Your task to perform on an android device: turn off javascript in the chrome app Image 0: 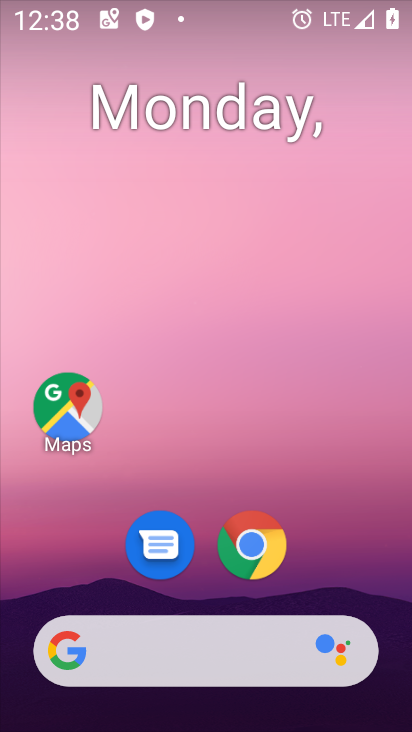
Step 0: drag from (386, 605) to (393, 310)
Your task to perform on an android device: turn off javascript in the chrome app Image 1: 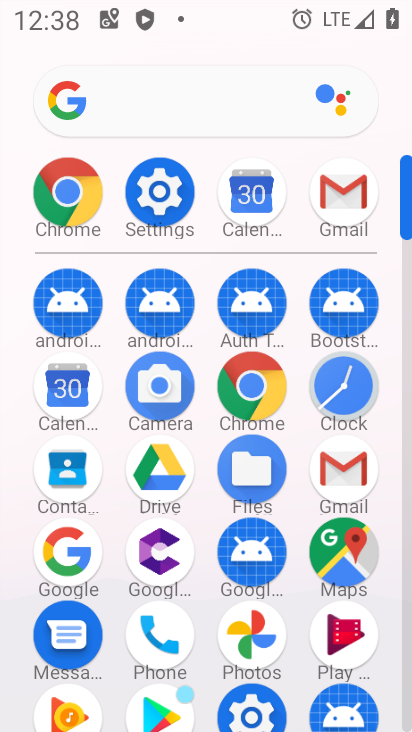
Step 1: click (277, 404)
Your task to perform on an android device: turn off javascript in the chrome app Image 2: 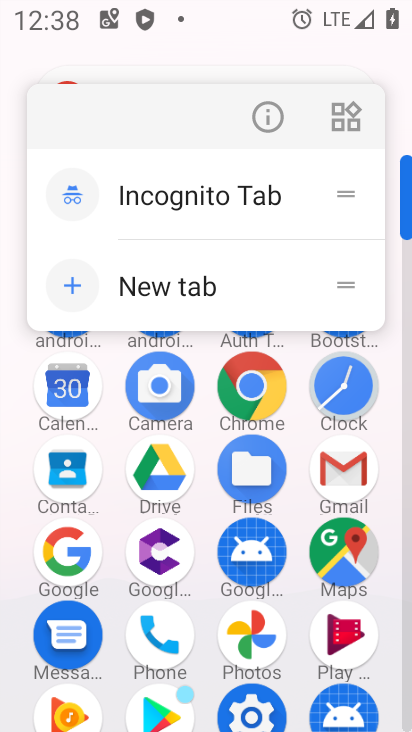
Step 2: click (277, 404)
Your task to perform on an android device: turn off javascript in the chrome app Image 3: 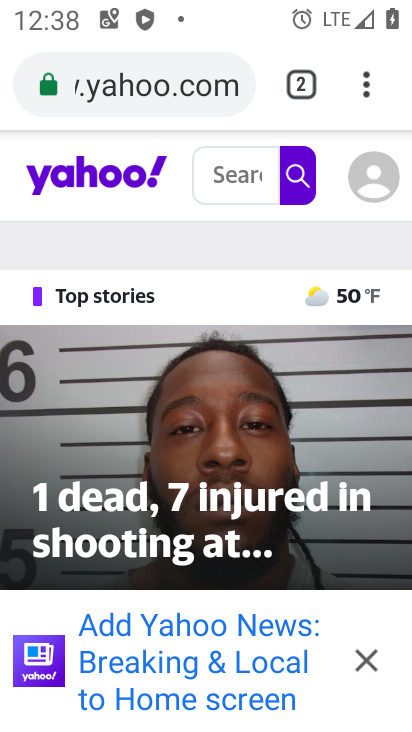
Step 3: click (362, 96)
Your task to perform on an android device: turn off javascript in the chrome app Image 4: 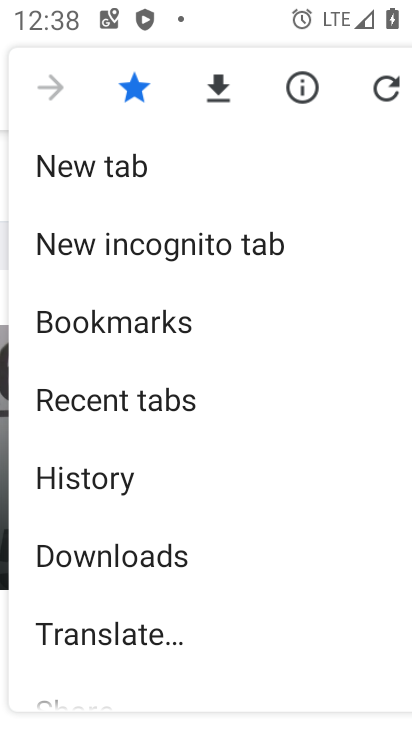
Step 4: drag from (324, 471) to (319, 315)
Your task to perform on an android device: turn off javascript in the chrome app Image 5: 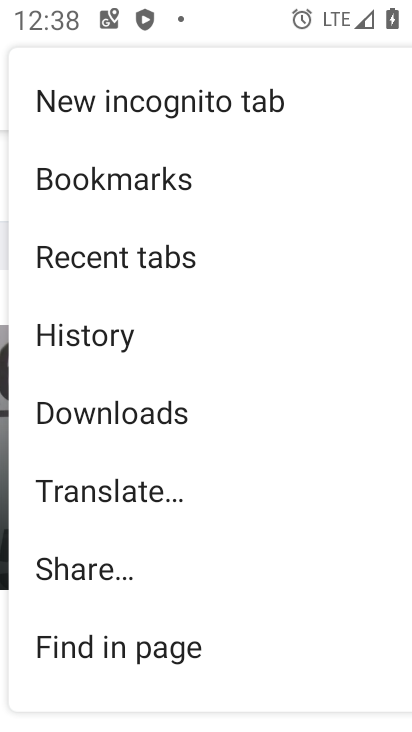
Step 5: drag from (319, 518) to (324, 337)
Your task to perform on an android device: turn off javascript in the chrome app Image 6: 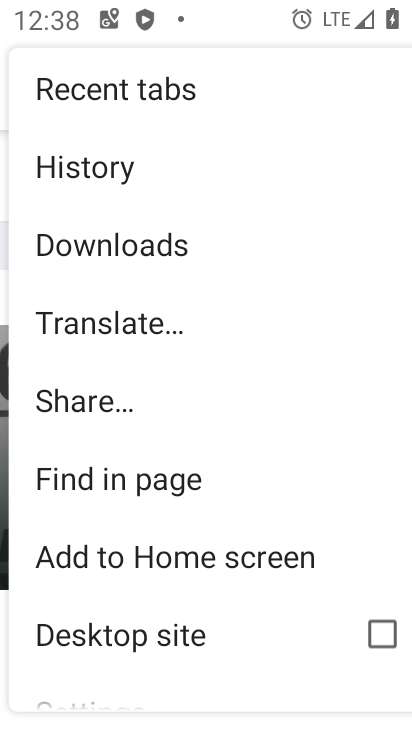
Step 6: drag from (322, 524) to (333, 358)
Your task to perform on an android device: turn off javascript in the chrome app Image 7: 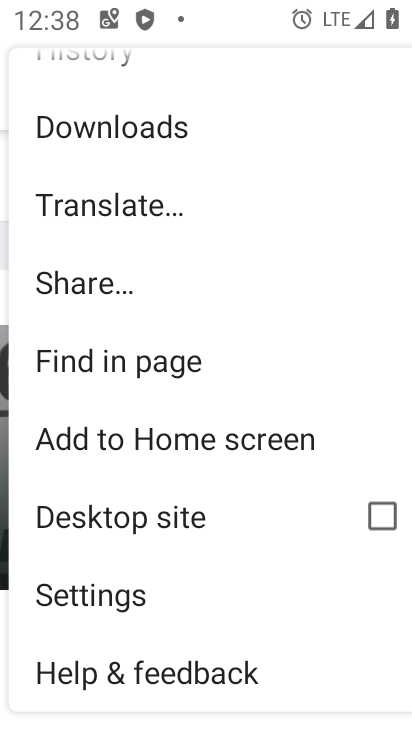
Step 7: click (107, 627)
Your task to perform on an android device: turn off javascript in the chrome app Image 8: 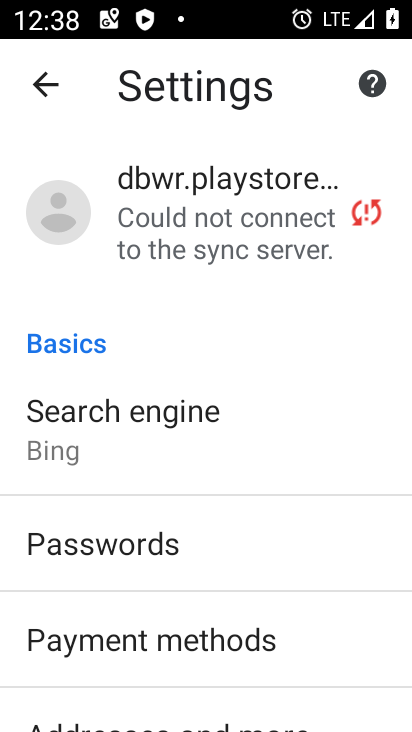
Step 8: drag from (260, 530) to (278, 418)
Your task to perform on an android device: turn off javascript in the chrome app Image 9: 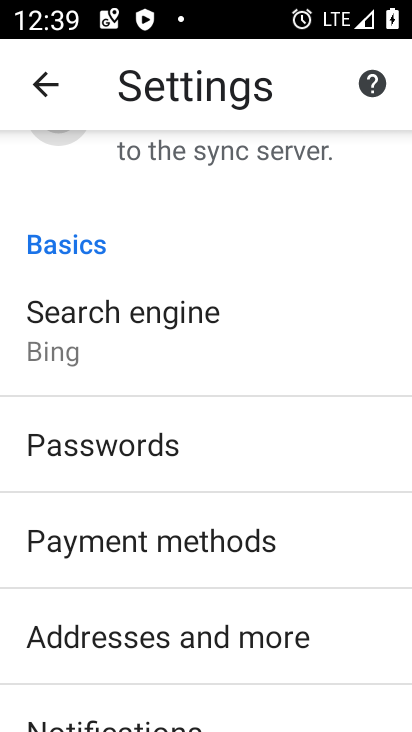
Step 9: drag from (294, 559) to (319, 454)
Your task to perform on an android device: turn off javascript in the chrome app Image 10: 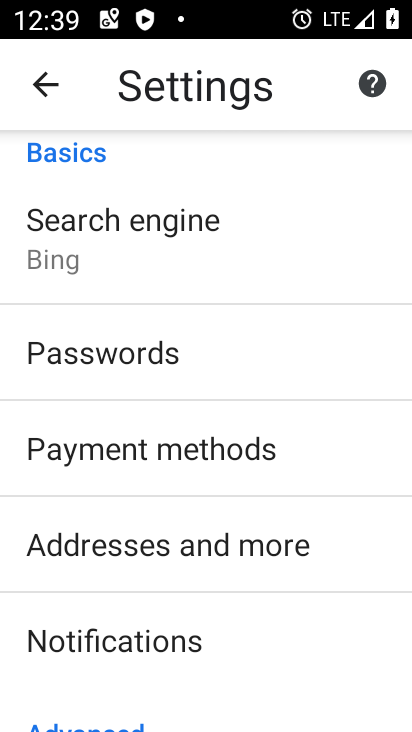
Step 10: drag from (264, 615) to (318, 476)
Your task to perform on an android device: turn off javascript in the chrome app Image 11: 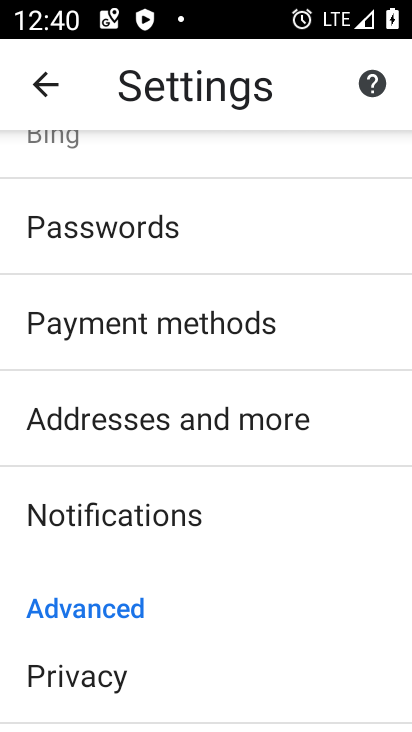
Step 11: drag from (179, 644) to (254, 389)
Your task to perform on an android device: turn off javascript in the chrome app Image 12: 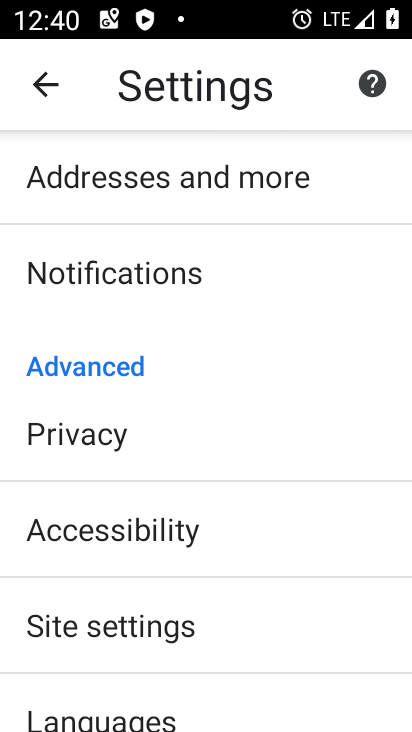
Step 12: click (225, 631)
Your task to perform on an android device: turn off javascript in the chrome app Image 13: 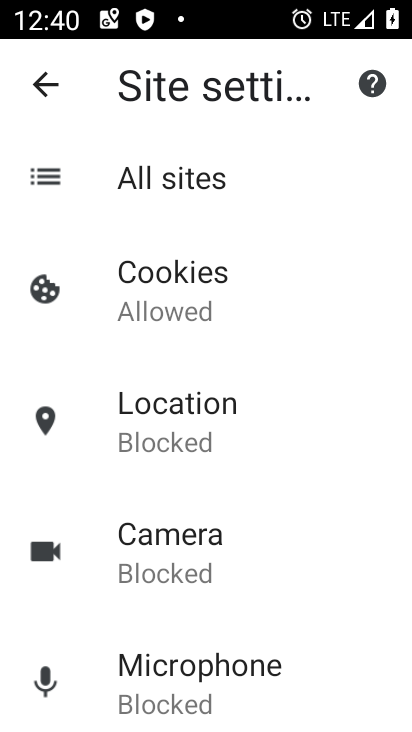
Step 13: drag from (345, 603) to (377, 394)
Your task to perform on an android device: turn off javascript in the chrome app Image 14: 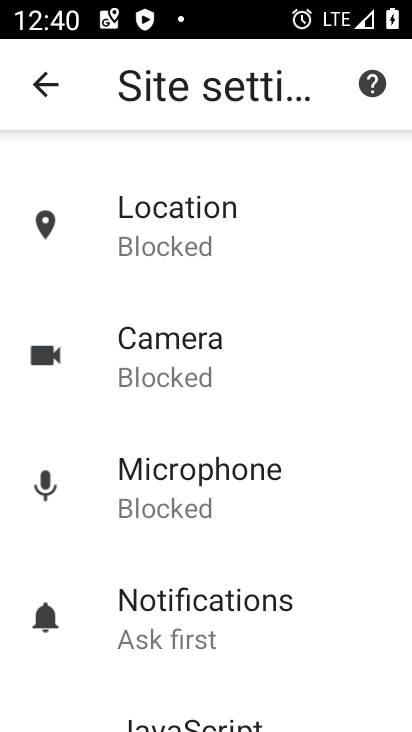
Step 14: drag from (336, 597) to (348, 367)
Your task to perform on an android device: turn off javascript in the chrome app Image 15: 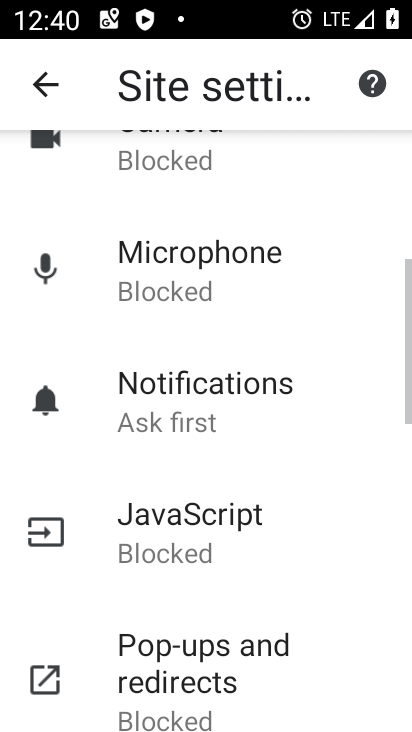
Step 15: click (293, 517)
Your task to perform on an android device: turn off javascript in the chrome app Image 16: 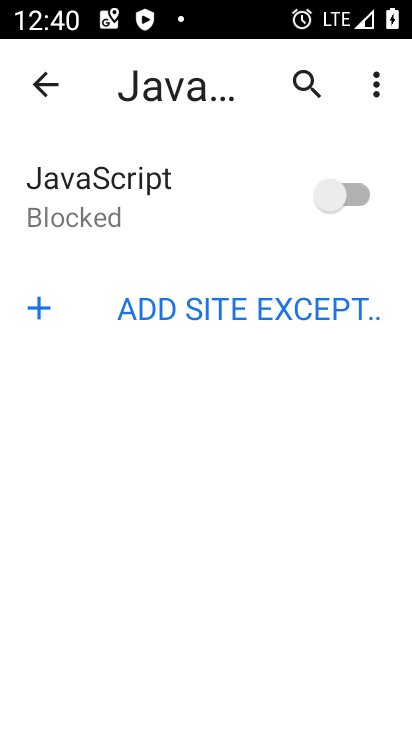
Step 16: task complete